Your task to perform on an android device: install app "Mercado Libre" Image 0: 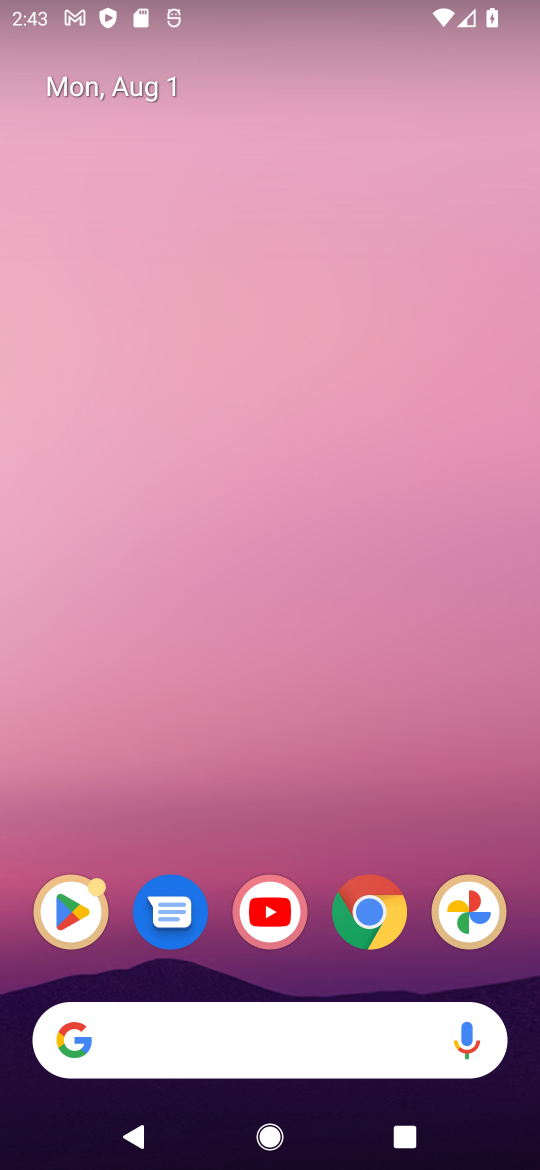
Step 0: click (72, 917)
Your task to perform on an android device: install app "Mercado Libre" Image 1: 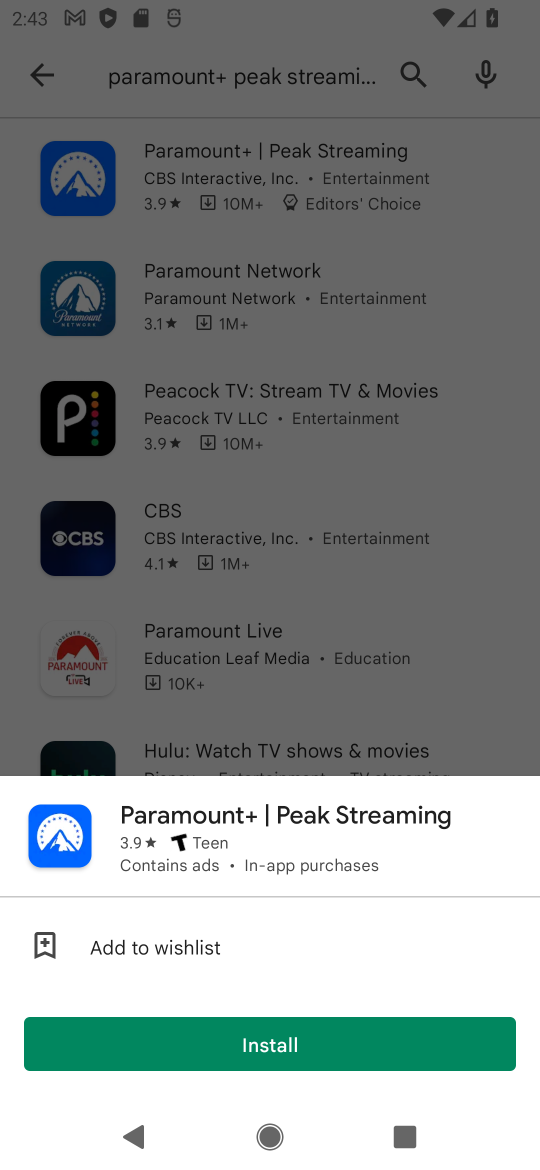
Step 1: click (417, 99)
Your task to perform on an android device: install app "Mercado Libre" Image 2: 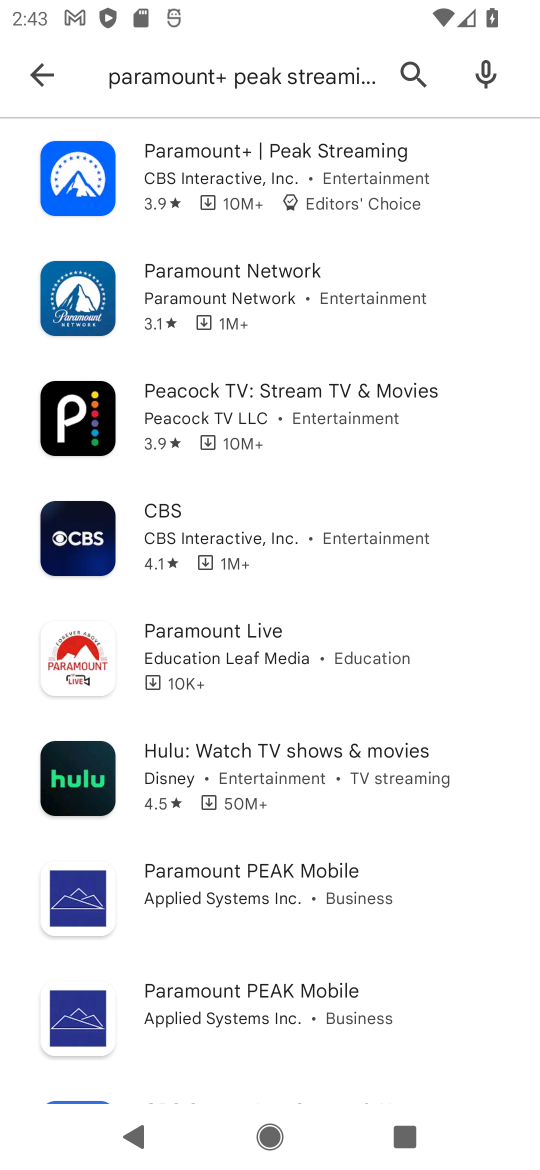
Step 2: click (412, 74)
Your task to perform on an android device: install app "Mercado Libre" Image 3: 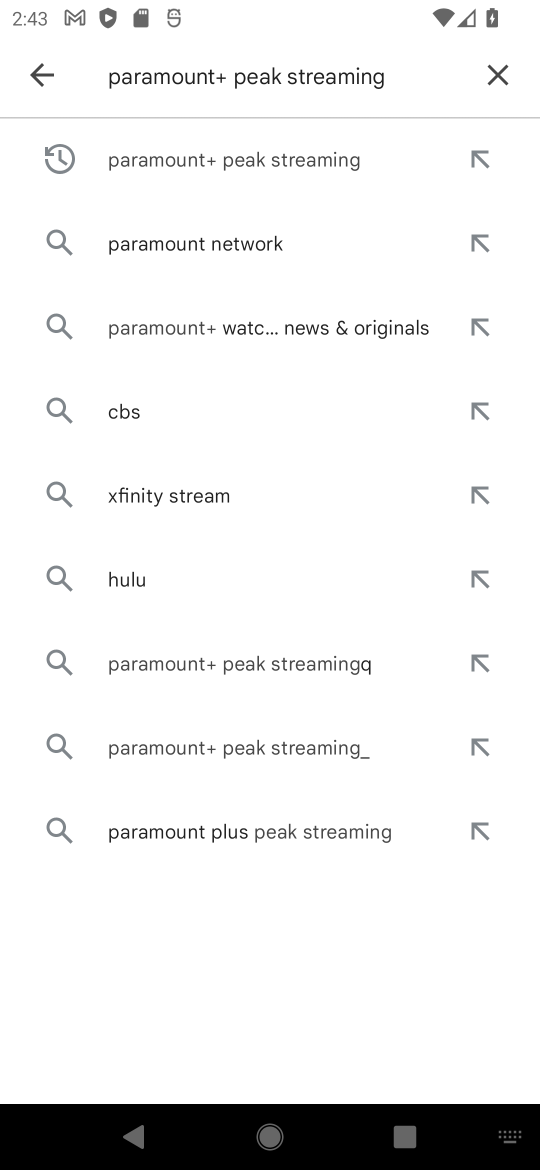
Step 3: click (484, 87)
Your task to perform on an android device: install app "Mercado Libre" Image 4: 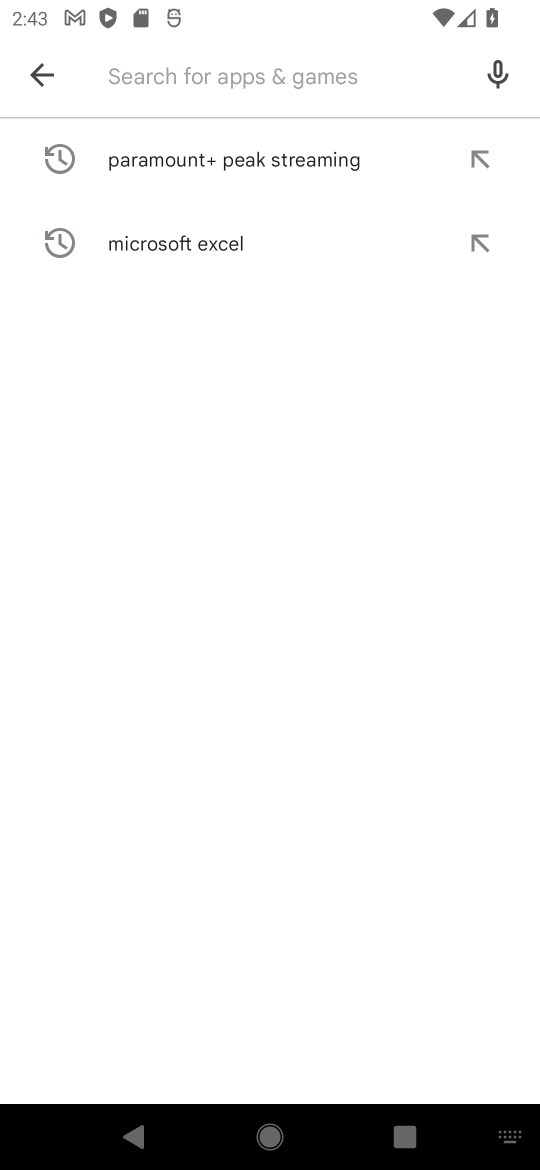
Step 4: type "Mercado Libre"
Your task to perform on an android device: install app "Mercado Libre" Image 5: 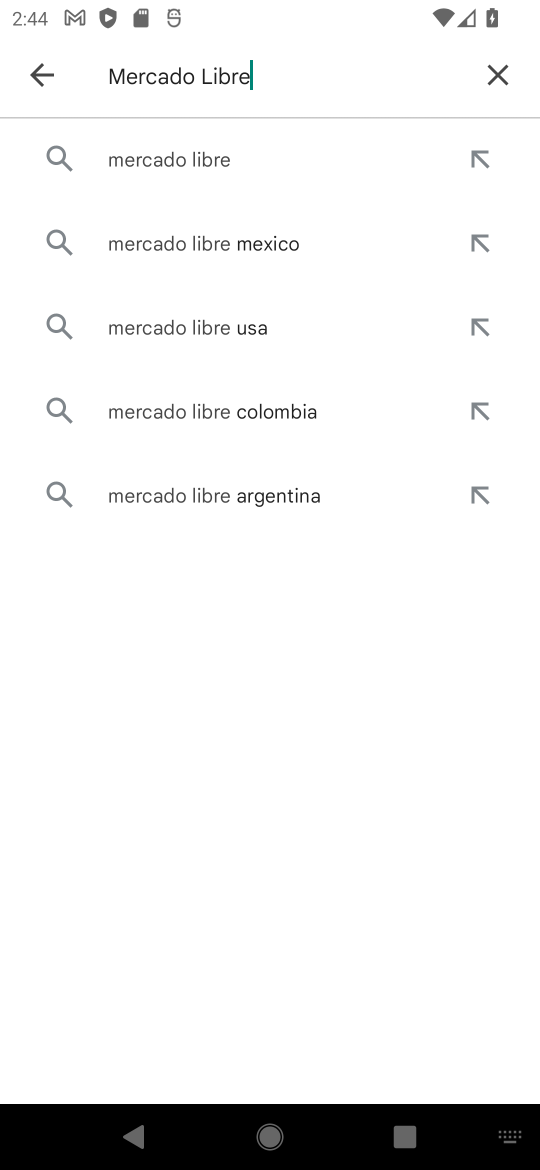
Step 5: click (172, 171)
Your task to perform on an android device: install app "Mercado Libre" Image 6: 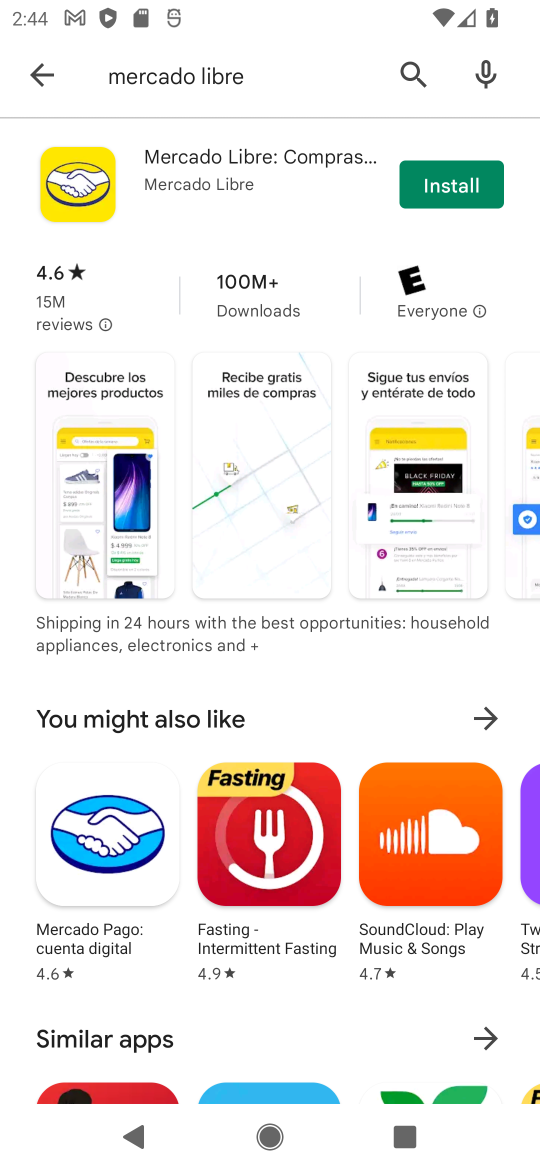
Step 6: click (454, 194)
Your task to perform on an android device: install app "Mercado Libre" Image 7: 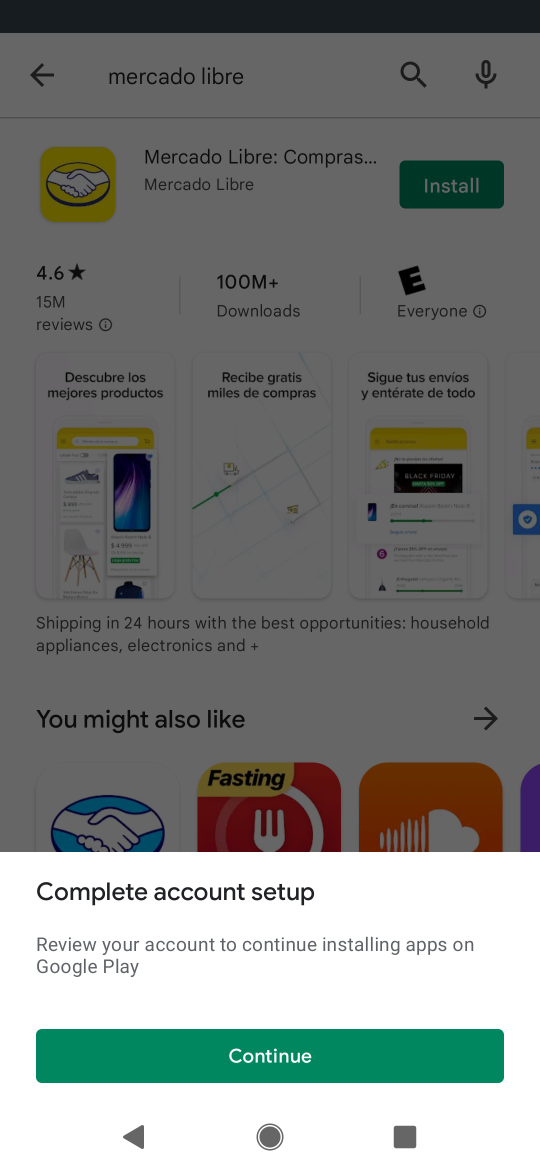
Step 7: click (260, 1068)
Your task to perform on an android device: install app "Mercado Libre" Image 8: 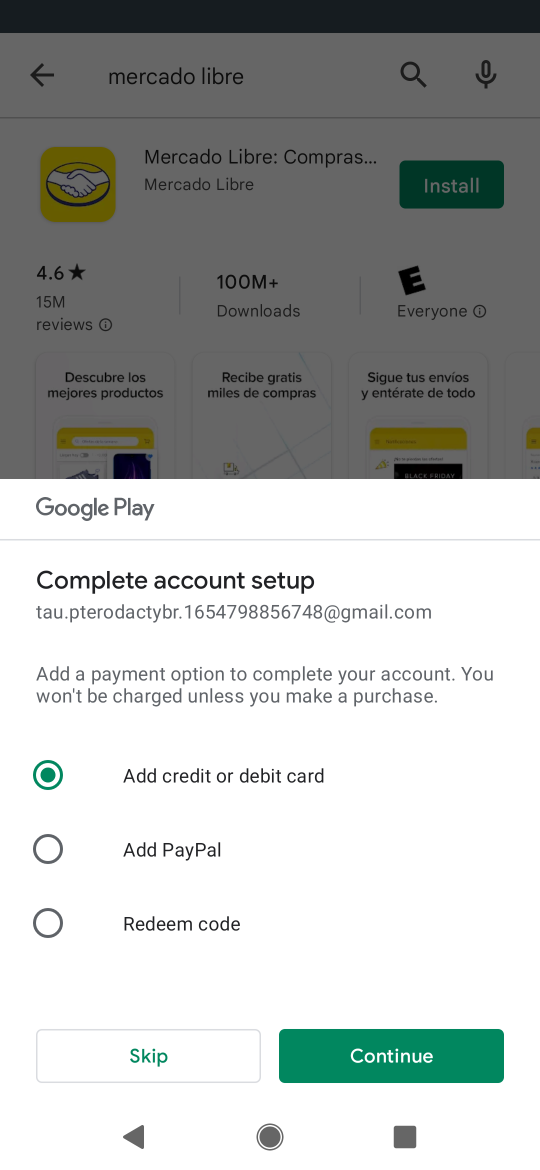
Step 8: click (140, 1064)
Your task to perform on an android device: install app "Mercado Libre" Image 9: 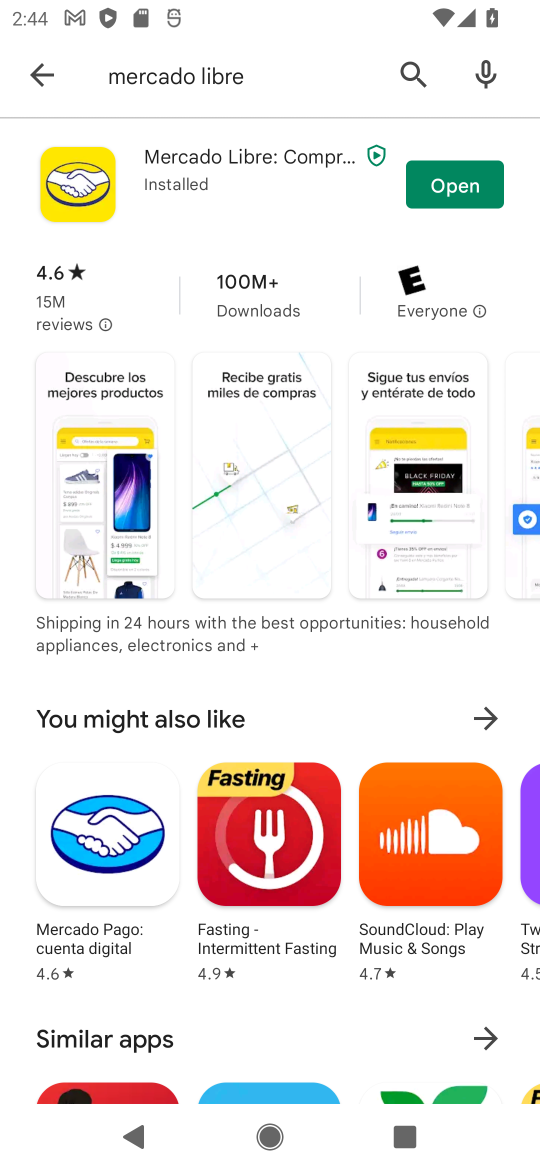
Step 9: task complete